Your task to perform on an android device: Open eBay Image 0: 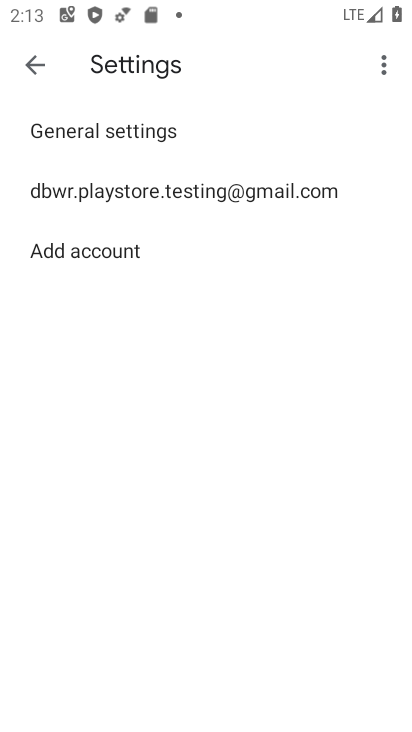
Step 0: press home button
Your task to perform on an android device: Open eBay Image 1: 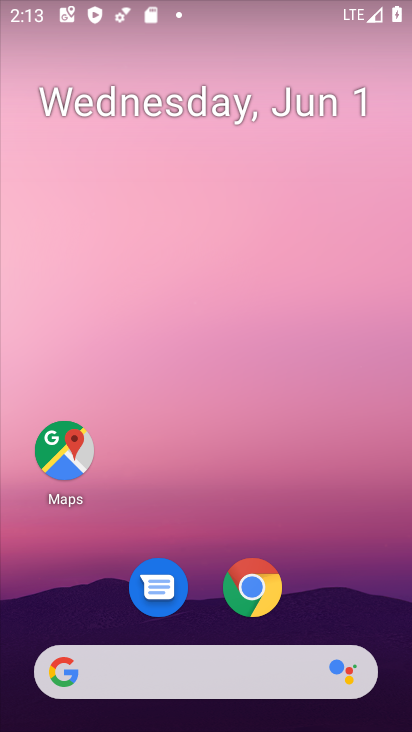
Step 1: click (267, 579)
Your task to perform on an android device: Open eBay Image 2: 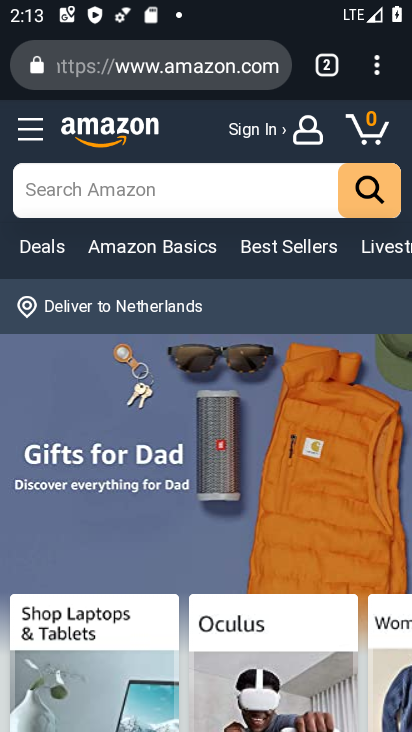
Step 2: click (171, 68)
Your task to perform on an android device: Open eBay Image 3: 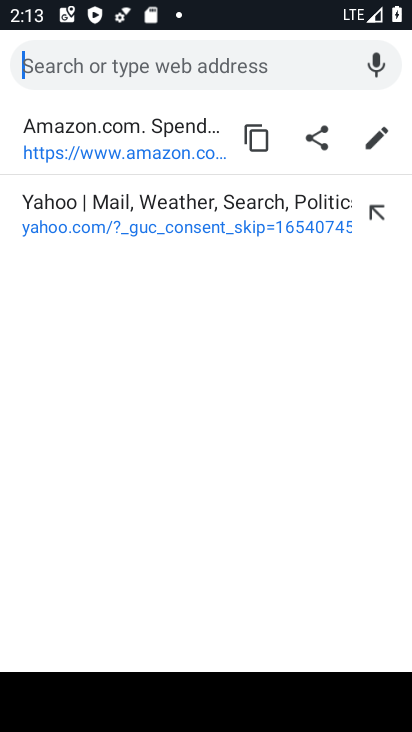
Step 3: type "ebay"
Your task to perform on an android device: Open eBay Image 4: 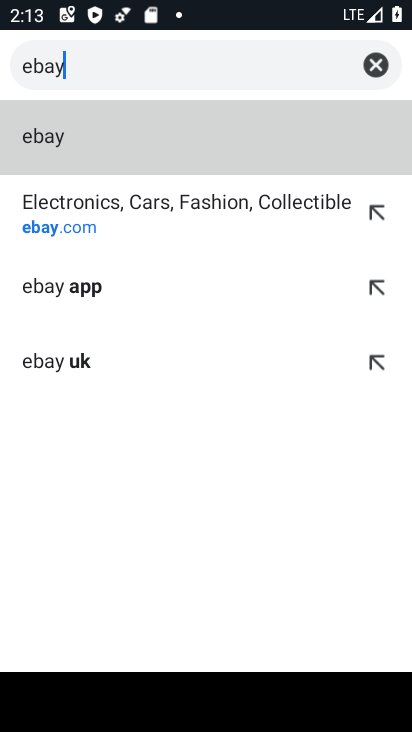
Step 4: click (116, 212)
Your task to perform on an android device: Open eBay Image 5: 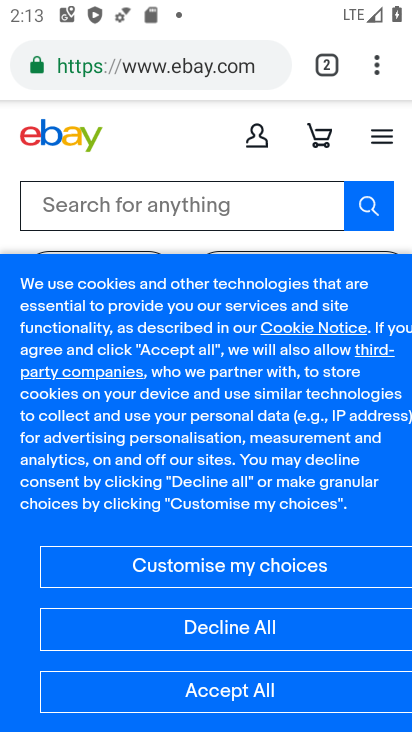
Step 5: task complete